Your task to perform on an android device: change text size in settings app Image 0: 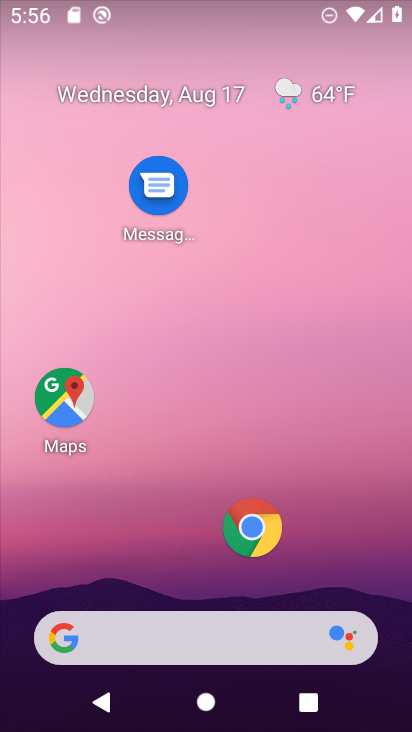
Step 0: drag from (150, 575) to (173, 296)
Your task to perform on an android device: change text size in settings app Image 1: 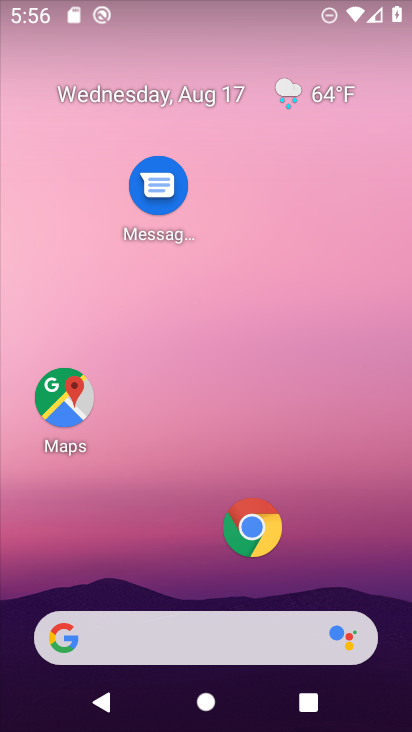
Step 1: drag from (213, 606) to (257, 176)
Your task to perform on an android device: change text size in settings app Image 2: 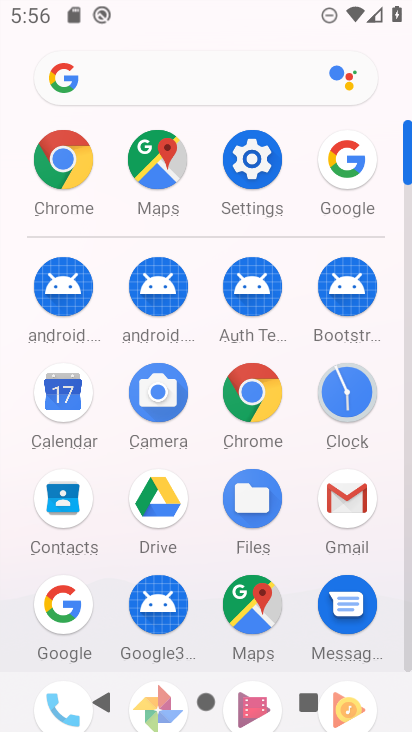
Step 2: click (260, 159)
Your task to perform on an android device: change text size in settings app Image 3: 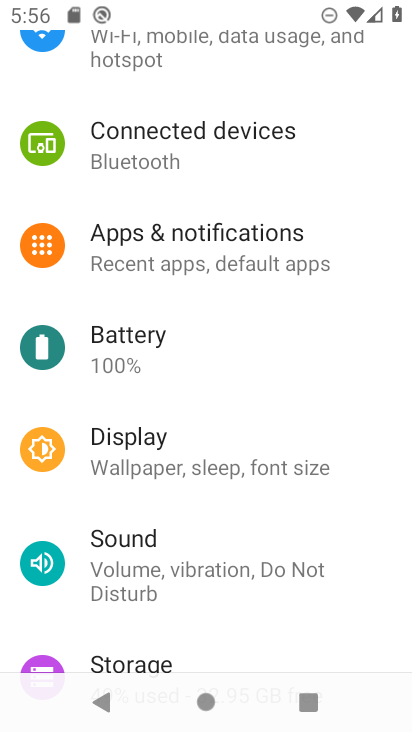
Step 3: drag from (139, 591) to (186, 287)
Your task to perform on an android device: change text size in settings app Image 4: 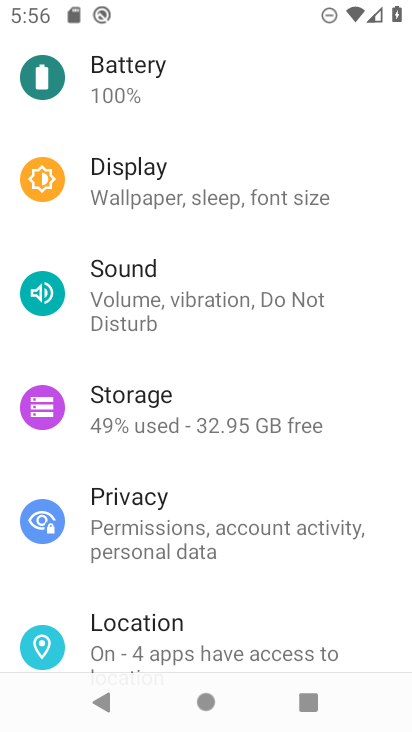
Step 4: drag from (160, 628) to (156, 338)
Your task to perform on an android device: change text size in settings app Image 5: 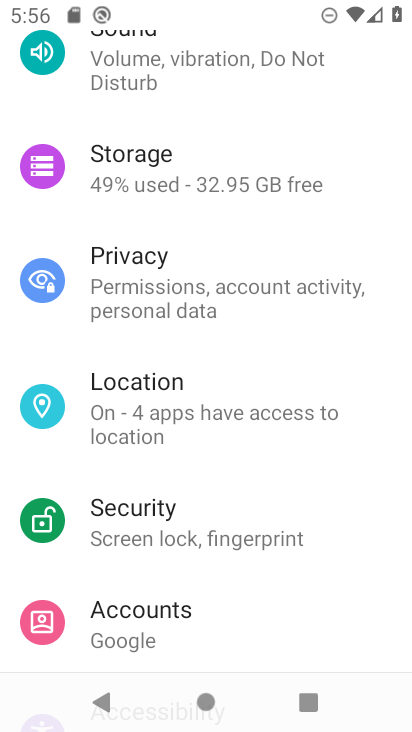
Step 5: drag from (127, 617) to (144, 295)
Your task to perform on an android device: change text size in settings app Image 6: 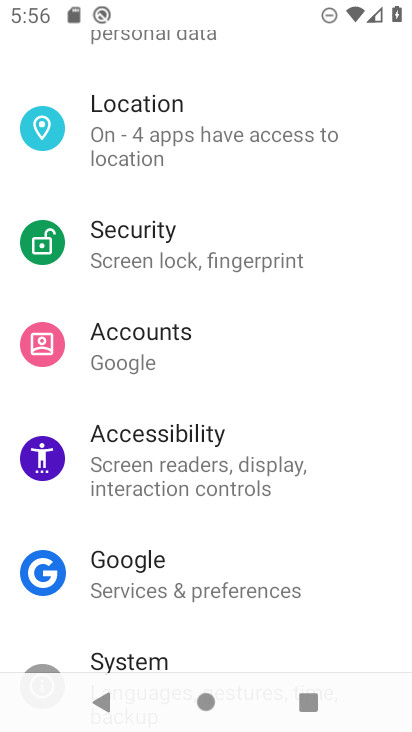
Step 6: click (148, 477)
Your task to perform on an android device: change text size in settings app Image 7: 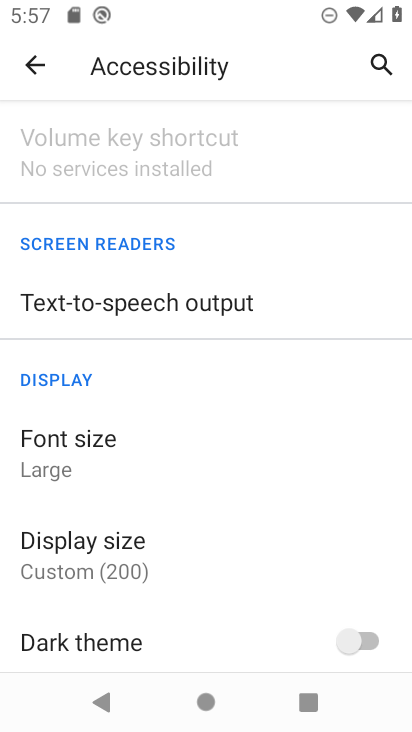
Step 7: click (54, 445)
Your task to perform on an android device: change text size in settings app Image 8: 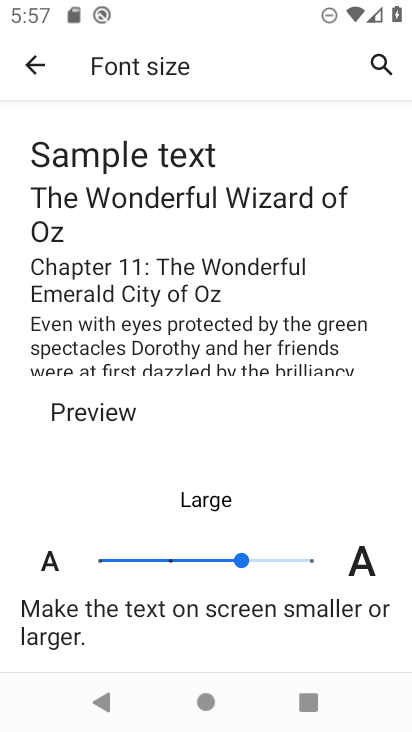
Step 8: click (209, 555)
Your task to perform on an android device: change text size in settings app Image 9: 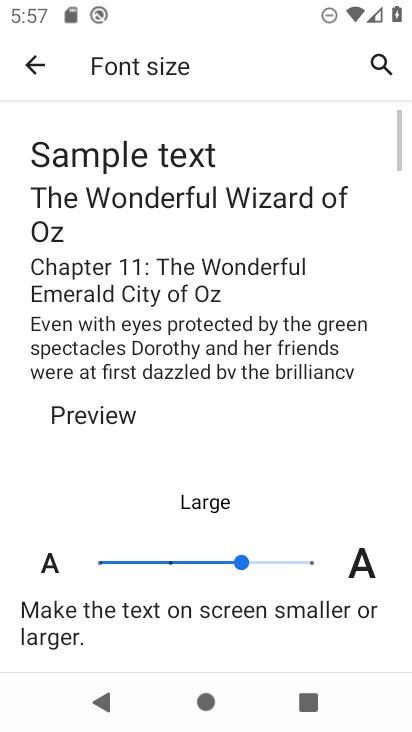
Step 9: click (165, 553)
Your task to perform on an android device: change text size in settings app Image 10: 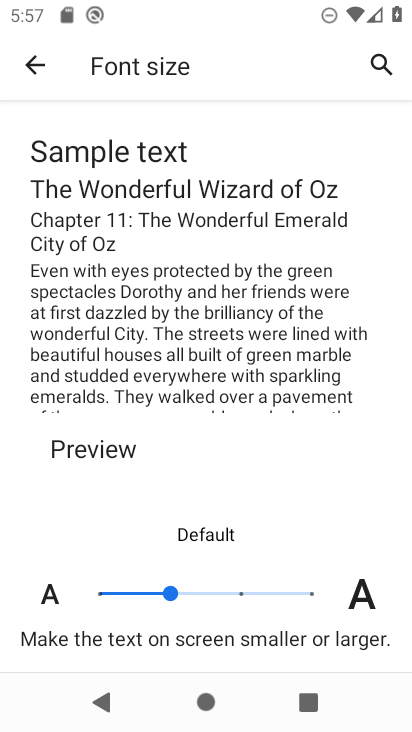
Step 10: task complete